Your task to perform on an android device: add a contact in the contacts app Image 0: 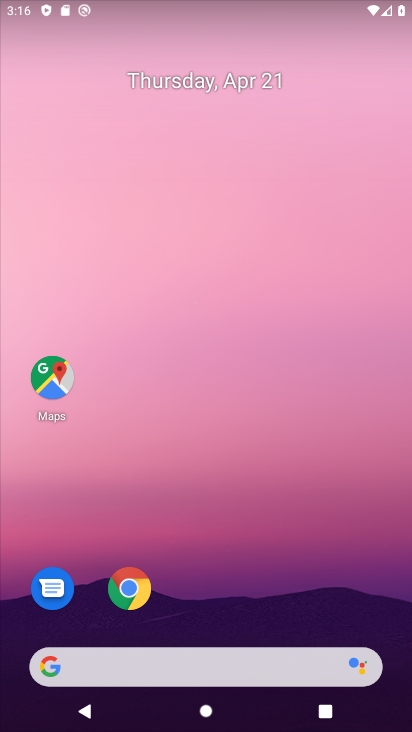
Step 0: drag from (285, 665) to (328, 44)
Your task to perform on an android device: add a contact in the contacts app Image 1: 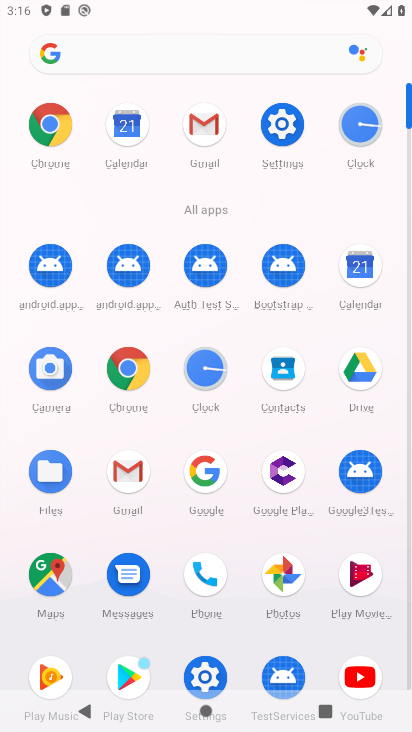
Step 1: click (300, 389)
Your task to perform on an android device: add a contact in the contacts app Image 2: 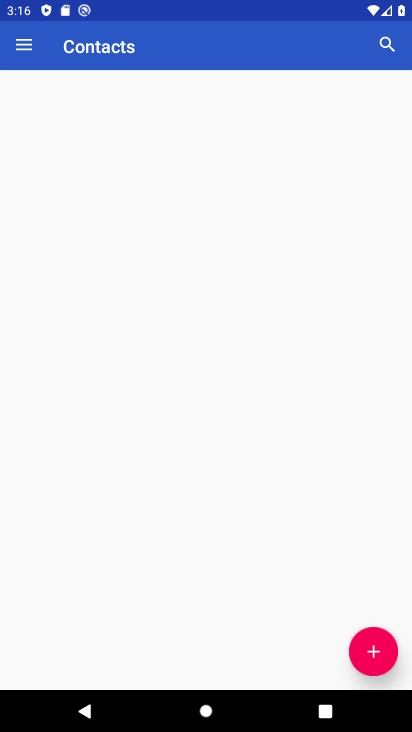
Step 2: click (371, 657)
Your task to perform on an android device: add a contact in the contacts app Image 3: 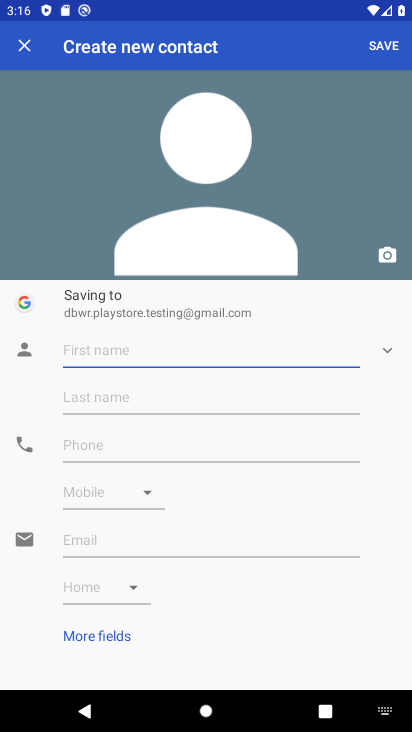
Step 3: type "mxbnvmbxc''"
Your task to perform on an android device: add a contact in the contacts app Image 4: 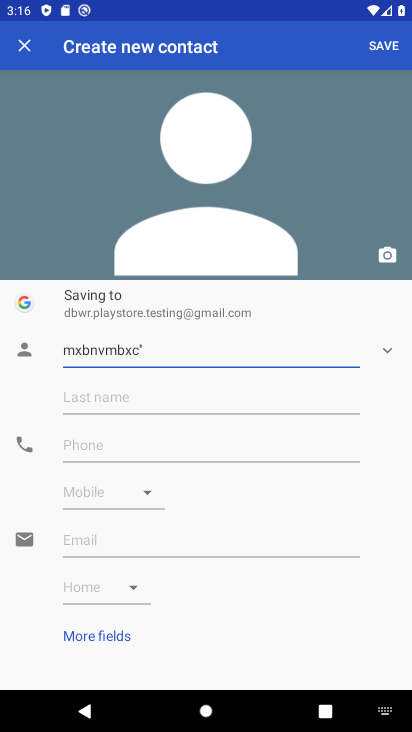
Step 4: click (153, 446)
Your task to perform on an android device: add a contact in the contacts app Image 5: 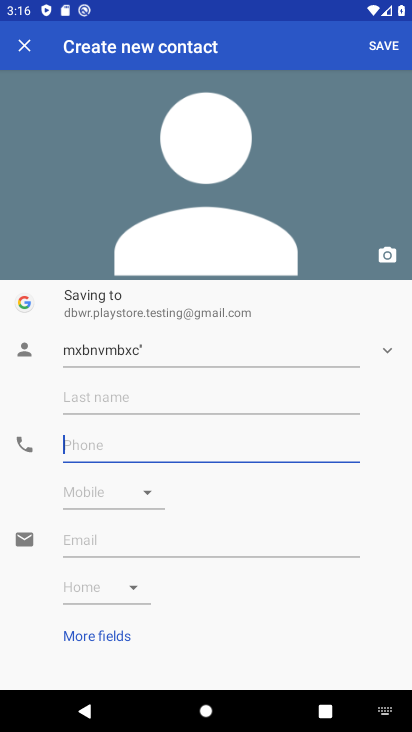
Step 5: type "t978344353"
Your task to perform on an android device: add a contact in the contacts app Image 6: 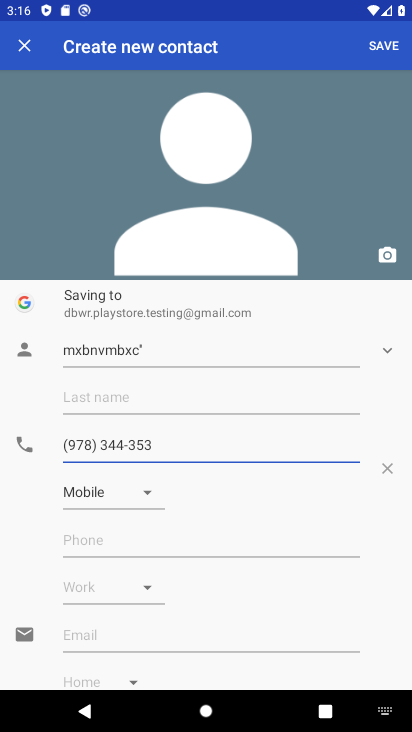
Step 6: click (398, 26)
Your task to perform on an android device: add a contact in the contacts app Image 7: 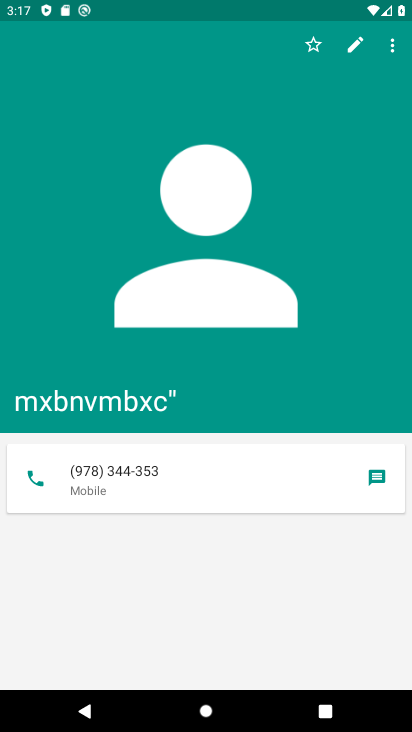
Step 7: task complete